Your task to perform on an android device: Open Youtube and go to "Your channel" Image 0: 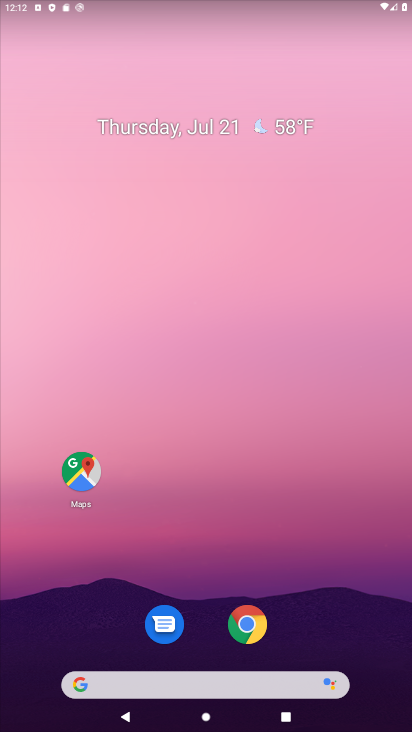
Step 0: drag from (212, 591) to (239, 188)
Your task to perform on an android device: Open Youtube and go to "Your channel" Image 1: 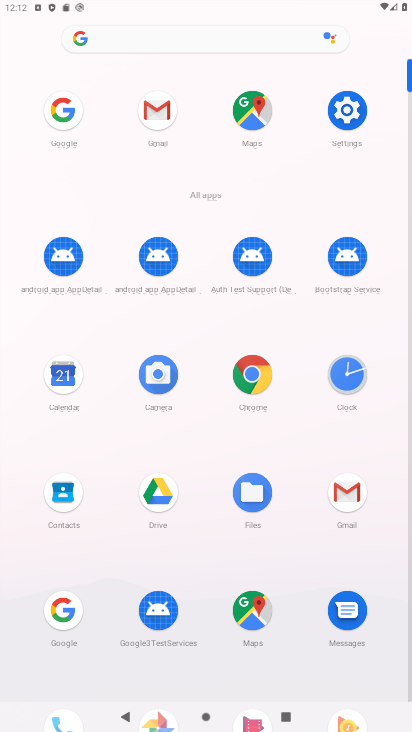
Step 1: drag from (188, 602) to (191, 294)
Your task to perform on an android device: Open Youtube and go to "Your channel" Image 2: 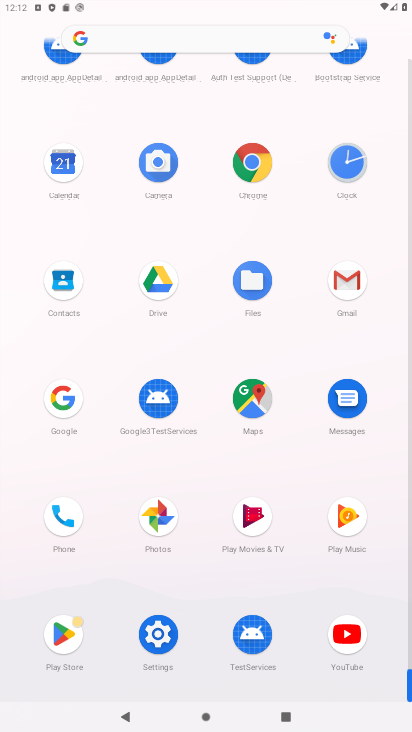
Step 2: click (344, 629)
Your task to perform on an android device: Open Youtube and go to "Your channel" Image 3: 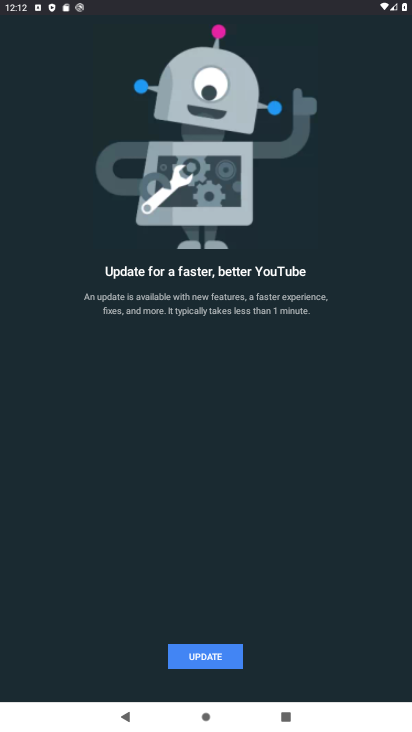
Step 3: click (202, 648)
Your task to perform on an android device: Open Youtube and go to "Your channel" Image 4: 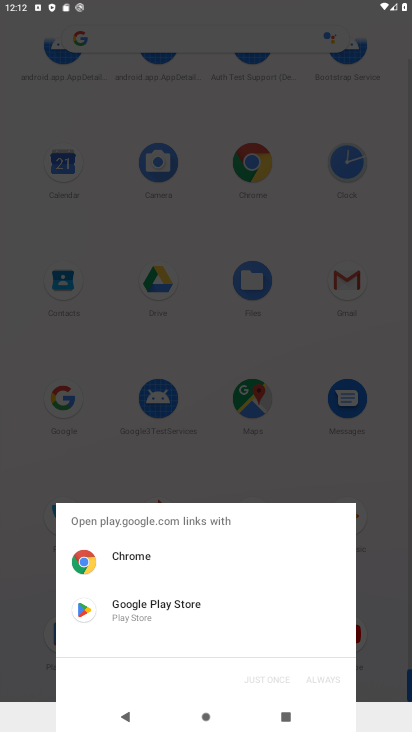
Step 4: click (156, 611)
Your task to perform on an android device: Open Youtube and go to "Your channel" Image 5: 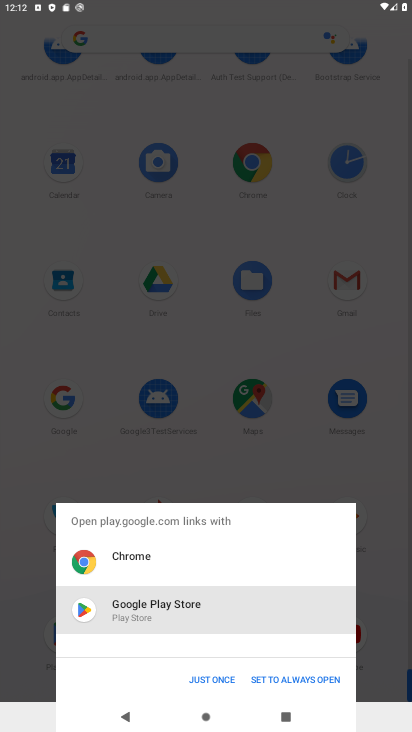
Step 5: click (299, 674)
Your task to perform on an android device: Open Youtube and go to "Your channel" Image 6: 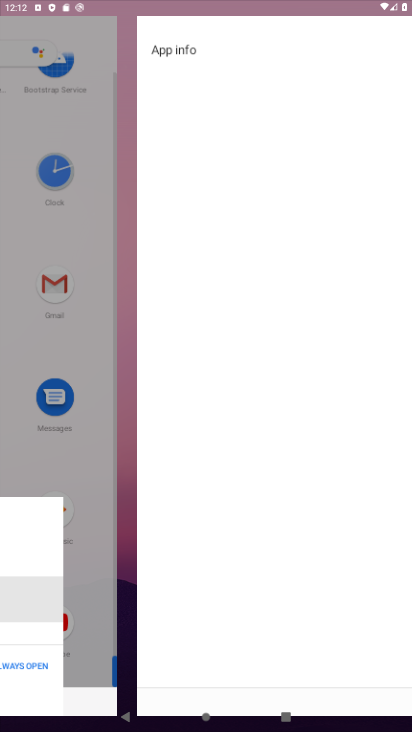
Step 6: click (231, 674)
Your task to perform on an android device: Open Youtube and go to "Your channel" Image 7: 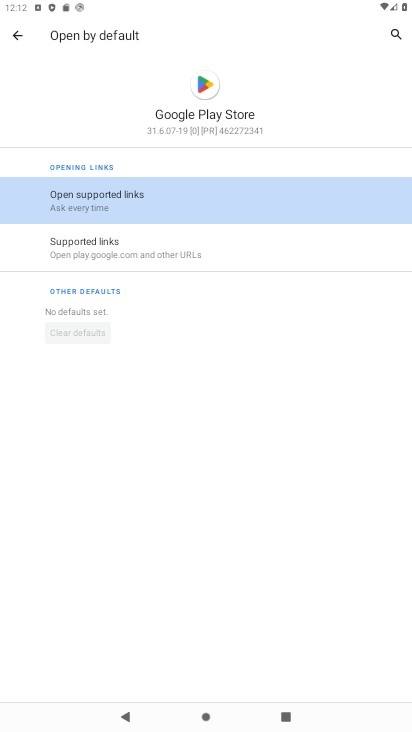
Step 7: click (16, 38)
Your task to perform on an android device: Open Youtube and go to "Your channel" Image 8: 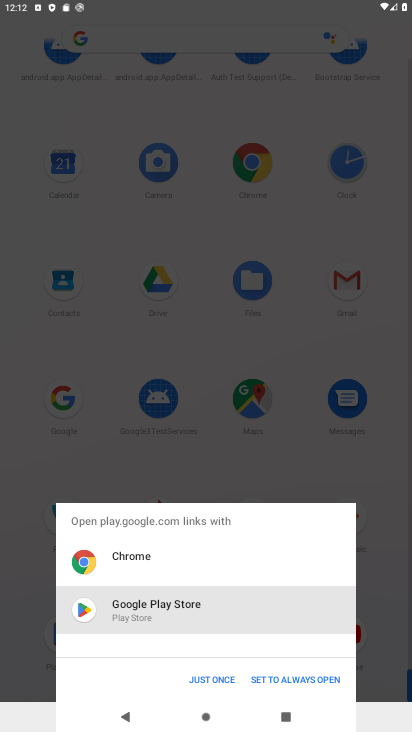
Step 8: click (217, 672)
Your task to perform on an android device: Open Youtube and go to "Your channel" Image 9: 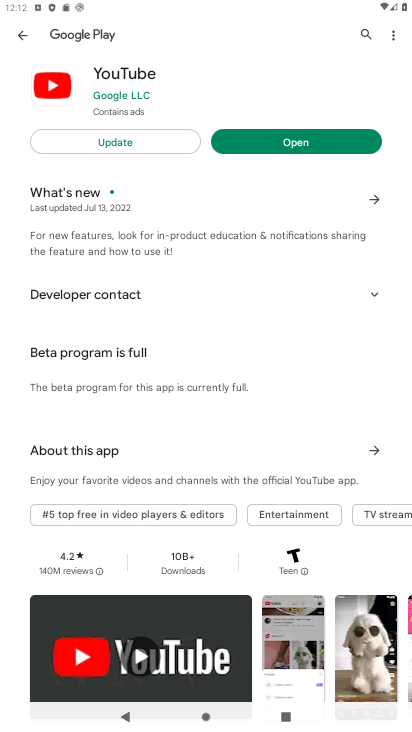
Step 9: click (162, 135)
Your task to perform on an android device: Open Youtube and go to "Your channel" Image 10: 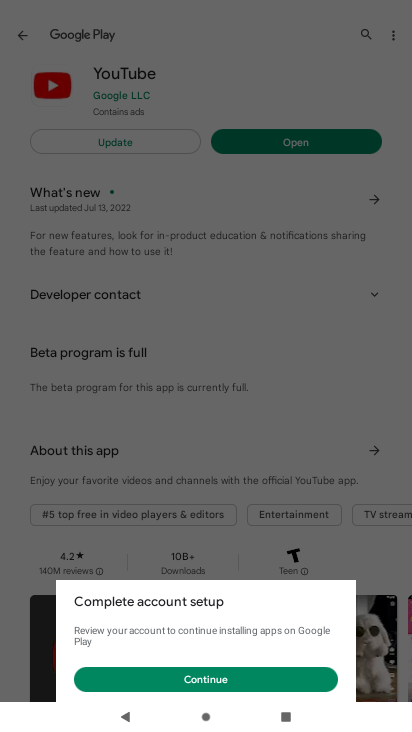
Step 10: click (251, 667)
Your task to perform on an android device: Open Youtube and go to "Your channel" Image 11: 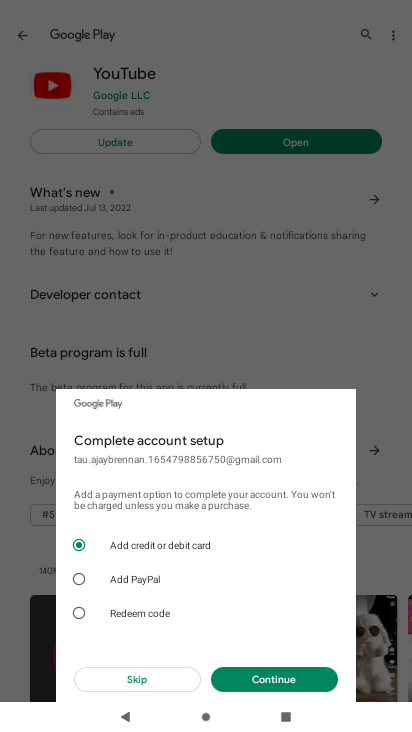
Step 11: click (293, 672)
Your task to perform on an android device: Open Youtube and go to "Your channel" Image 12: 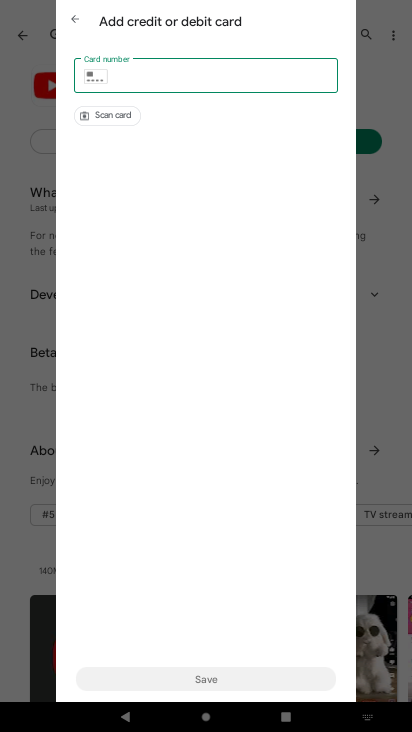
Step 12: click (404, 258)
Your task to perform on an android device: Open Youtube and go to "Your channel" Image 13: 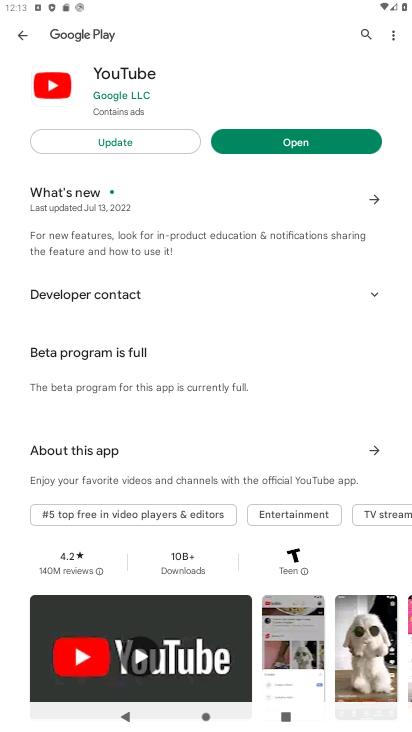
Step 13: click (311, 135)
Your task to perform on an android device: Open Youtube and go to "Your channel" Image 14: 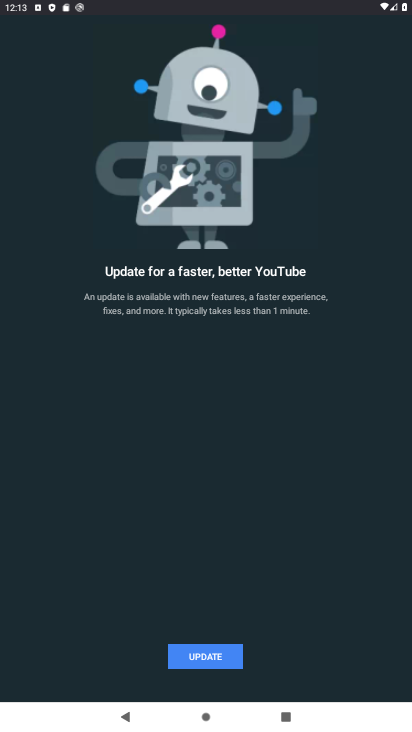
Step 14: click (212, 662)
Your task to perform on an android device: Open Youtube and go to "Your channel" Image 15: 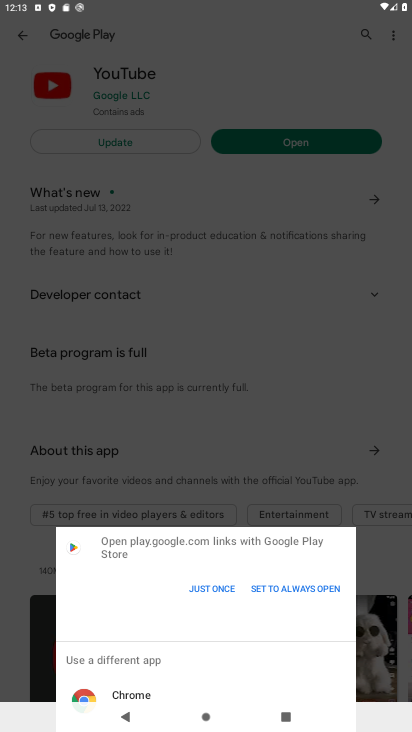
Step 15: drag from (198, 596) to (285, 596)
Your task to perform on an android device: Open Youtube and go to "Your channel" Image 16: 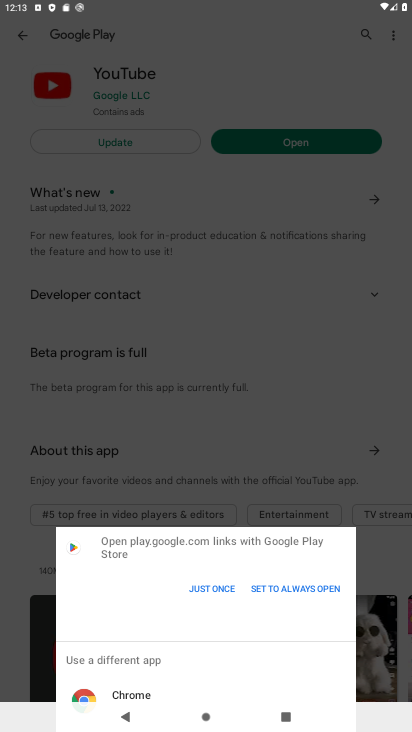
Step 16: click (219, 592)
Your task to perform on an android device: Open Youtube and go to "Your channel" Image 17: 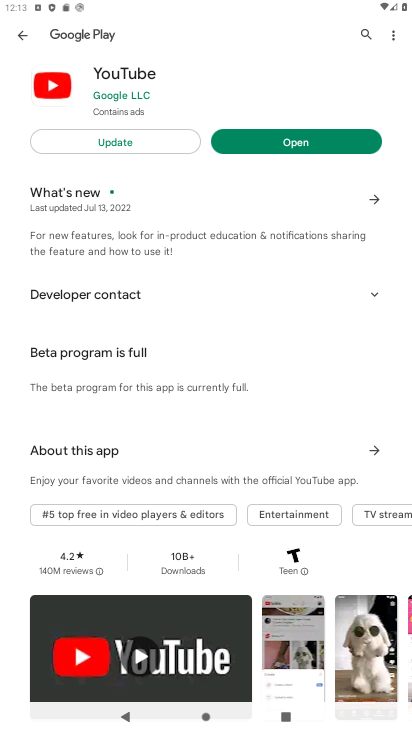
Step 17: click (138, 149)
Your task to perform on an android device: Open Youtube and go to "Your channel" Image 18: 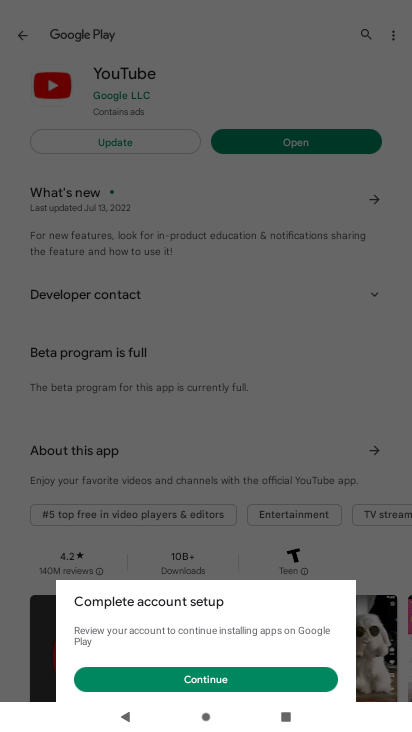
Step 18: click (272, 667)
Your task to perform on an android device: Open Youtube and go to "Your channel" Image 19: 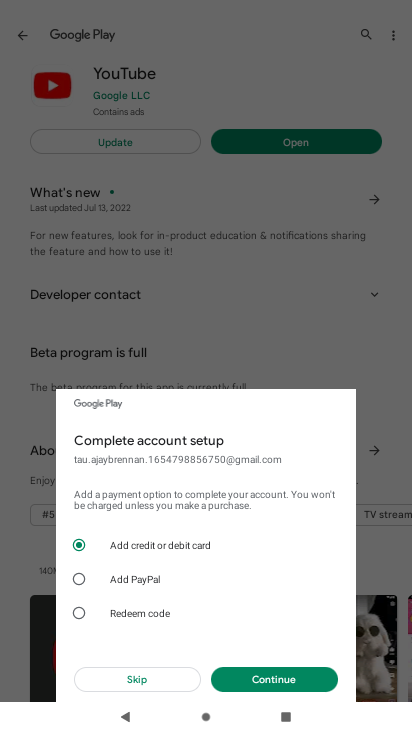
Step 19: click (157, 674)
Your task to perform on an android device: Open Youtube and go to "Your channel" Image 20: 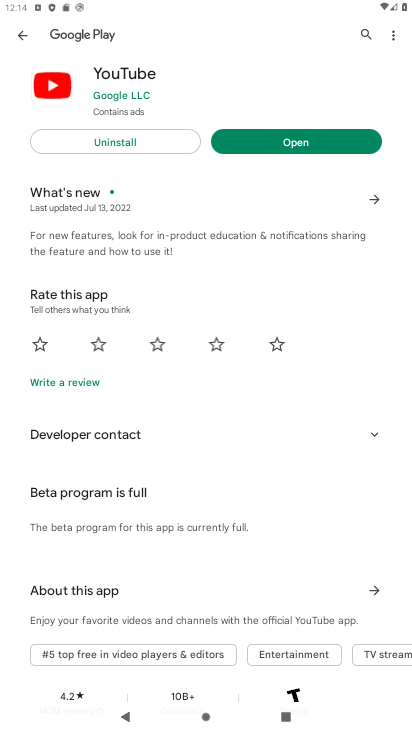
Step 20: click (302, 157)
Your task to perform on an android device: Open Youtube and go to "Your channel" Image 21: 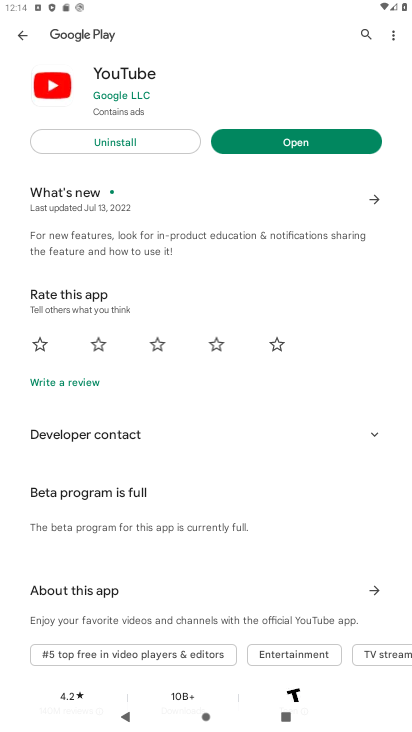
Step 21: click (301, 150)
Your task to perform on an android device: Open Youtube and go to "Your channel" Image 22: 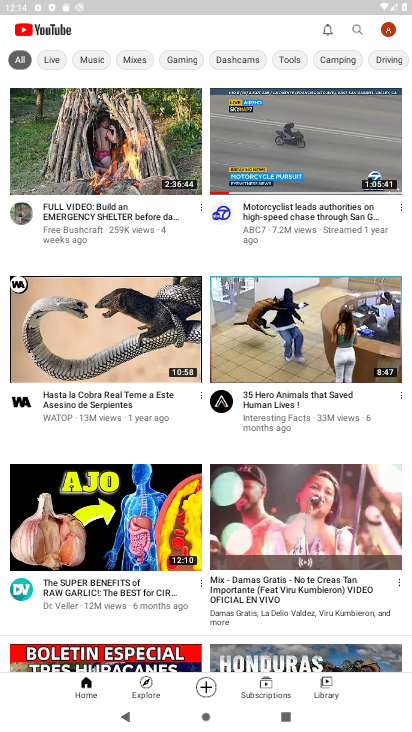
Step 22: click (379, 29)
Your task to perform on an android device: Open Youtube and go to "Your channel" Image 23: 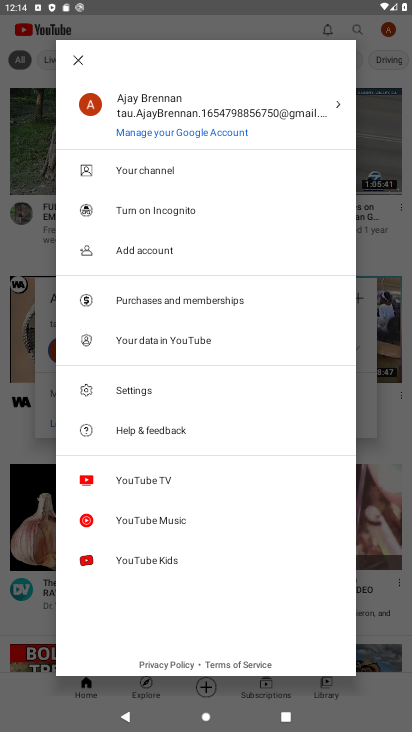
Step 23: click (155, 164)
Your task to perform on an android device: Open Youtube and go to "Your channel" Image 24: 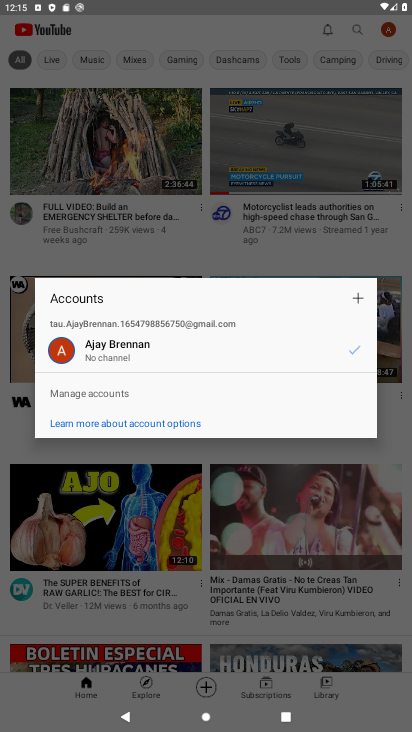
Step 24: click (140, 343)
Your task to perform on an android device: Open Youtube and go to "Your channel" Image 25: 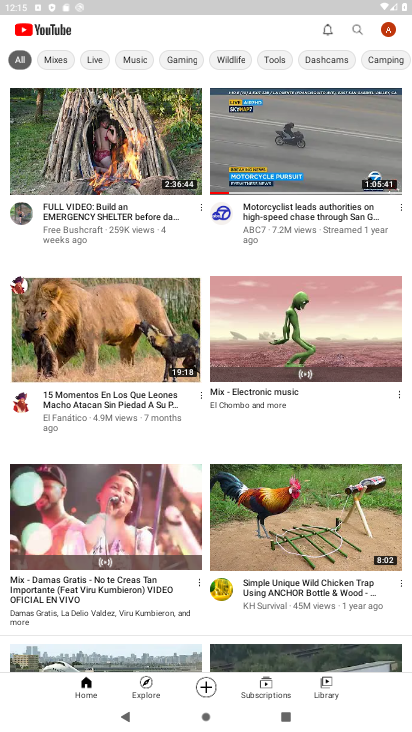
Step 25: task complete